Your task to perform on an android device: set the timer Image 0: 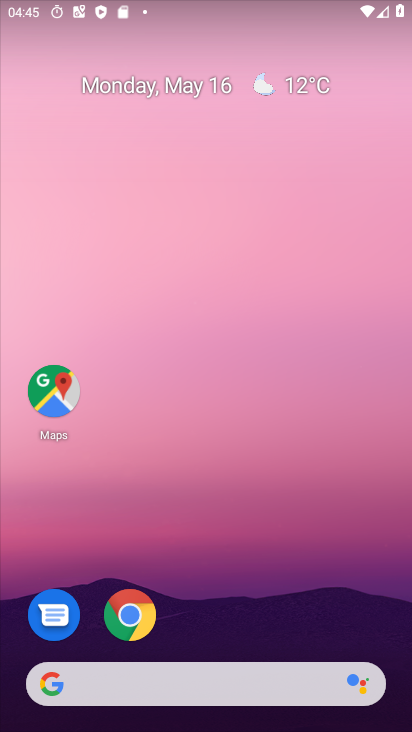
Step 0: click (142, 33)
Your task to perform on an android device: set the timer Image 1: 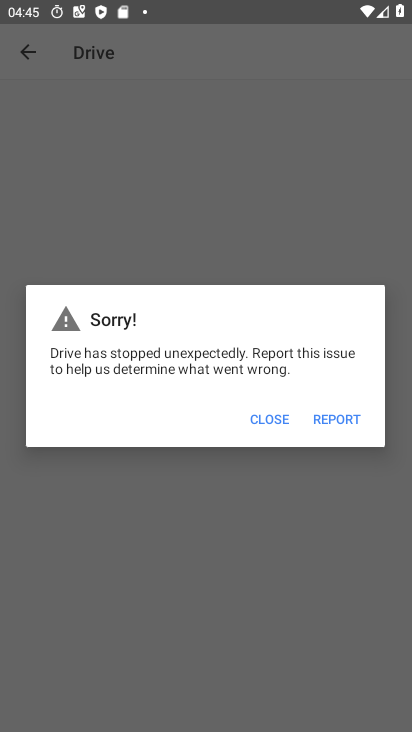
Step 1: drag from (220, 429) to (104, 33)
Your task to perform on an android device: set the timer Image 2: 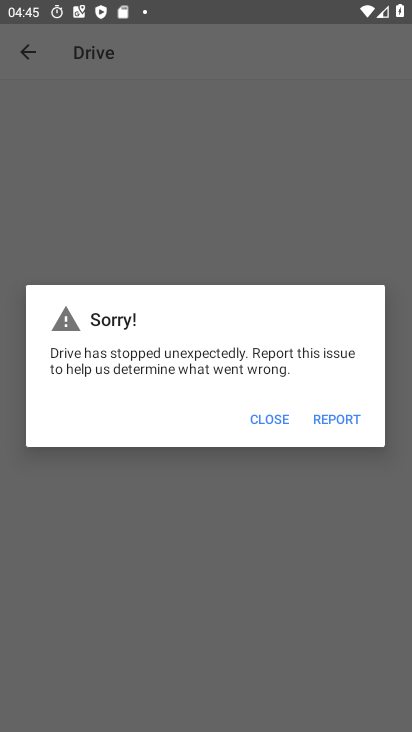
Step 2: click (247, 418)
Your task to perform on an android device: set the timer Image 3: 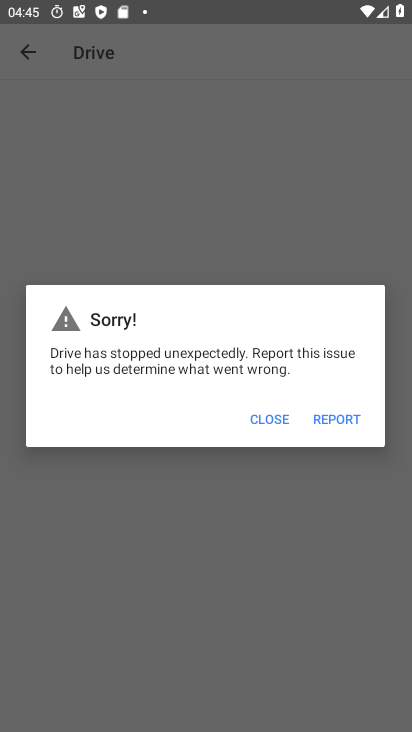
Step 3: click (261, 415)
Your task to perform on an android device: set the timer Image 4: 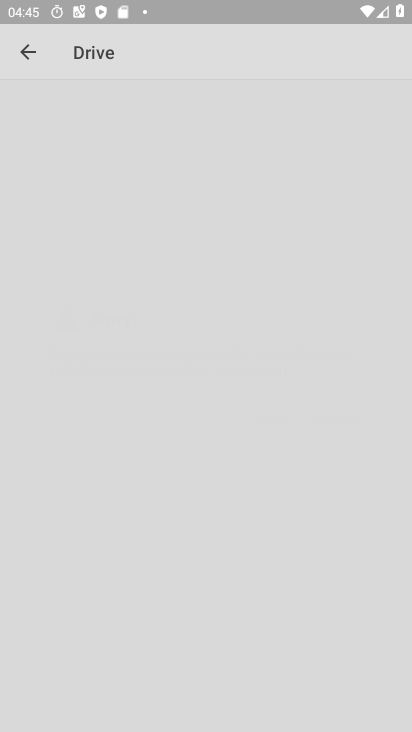
Step 4: click (262, 413)
Your task to perform on an android device: set the timer Image 5: 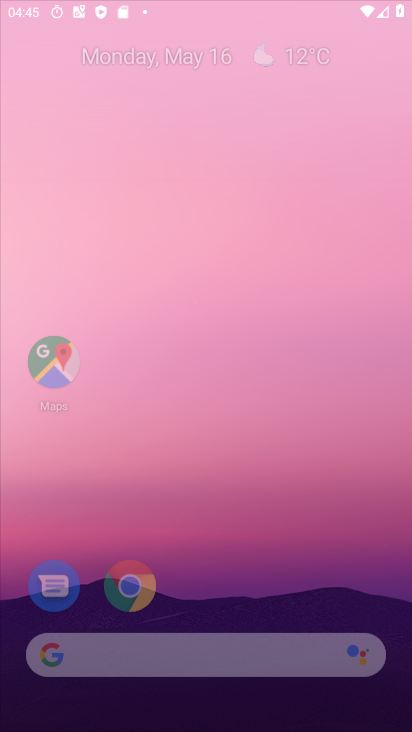
Step 5: click (262, 413)
Your task to perform on an android device: set the timer Image 6: 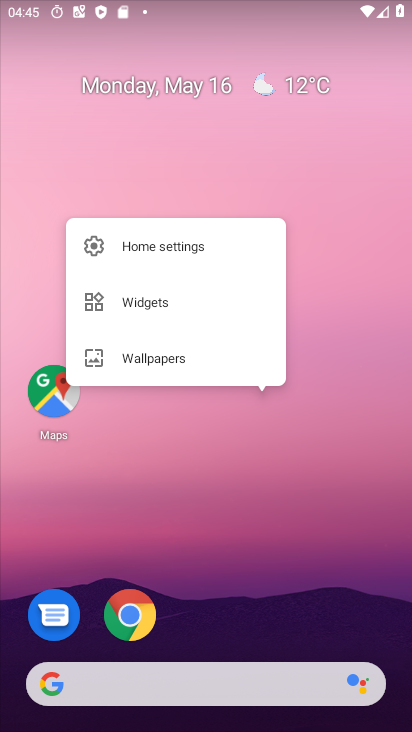
Step 6: drag from (334, 644) to (72, 36)
Your task to perform on an android device: set the timer Image 7: 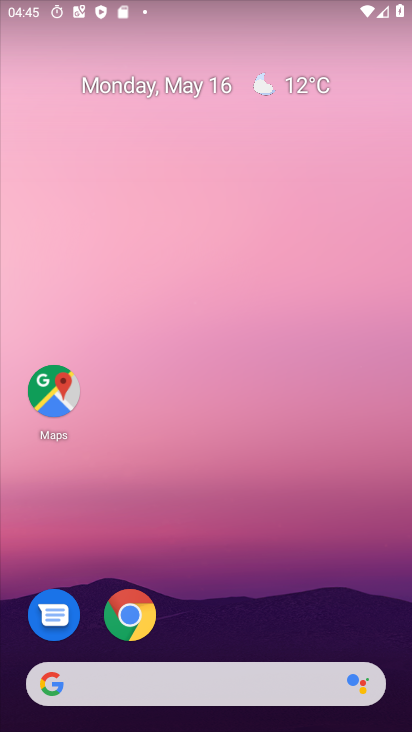
Step 7: drag from (269, 503) to (149, 2)
Your task to perform on an android device: set the timer Image 8: 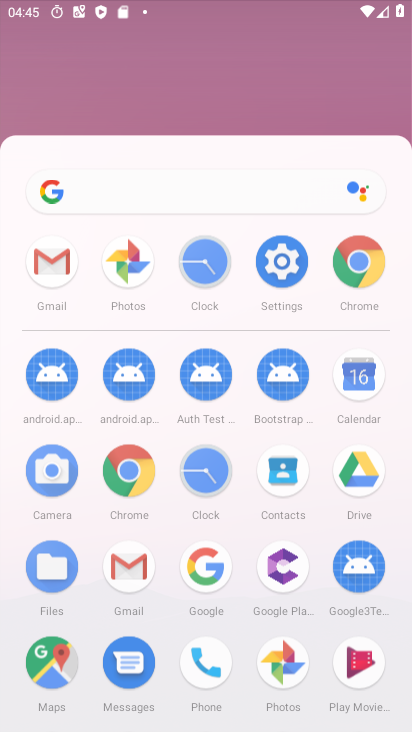
Step 8: drag from (202, 408) to (117, 40)
Your task to perform on an android device: set the timer Image 9: 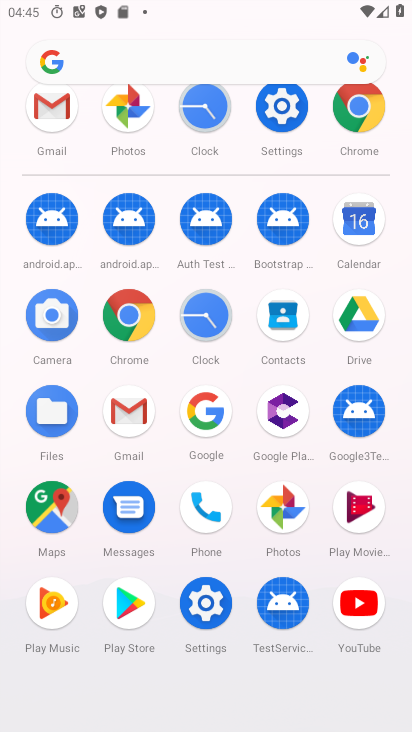
Step 9: drag from (311, 530) to (274, 12)
Your task to perform on an android device: set the timer Image 10: 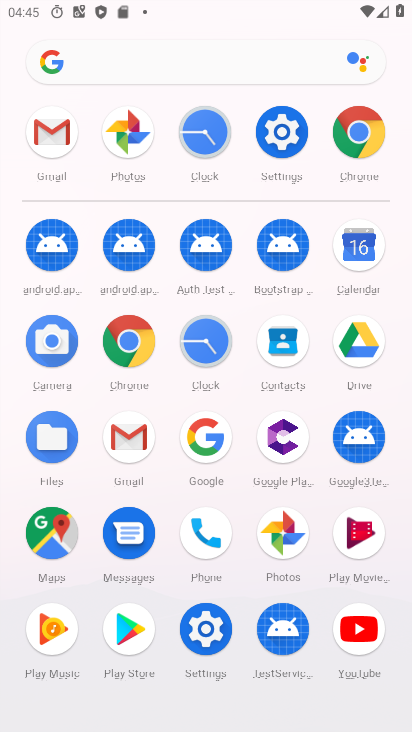
Step 10: click (195, 343)
Your task to perform on an android device: set the timer Image 11: 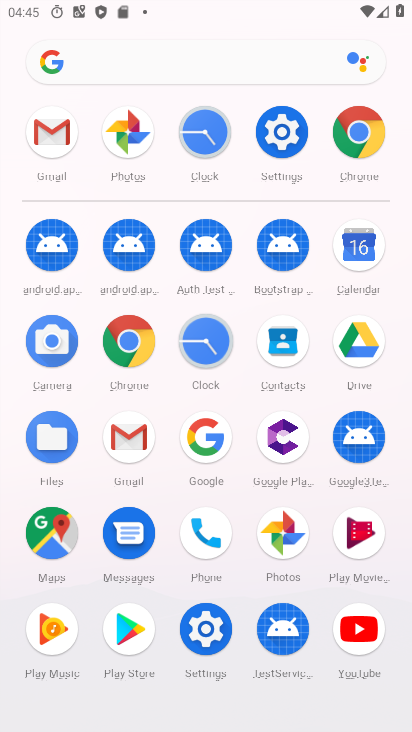
Step 11: click (195, 343)
Your task to perform on an android device: set the timer Image 12: 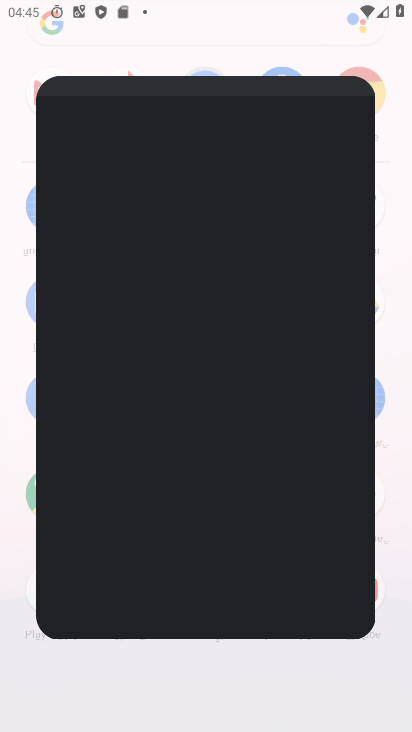
Step 12: click (195, 342)
Your task to perform on an android device: set the timer Image 13: 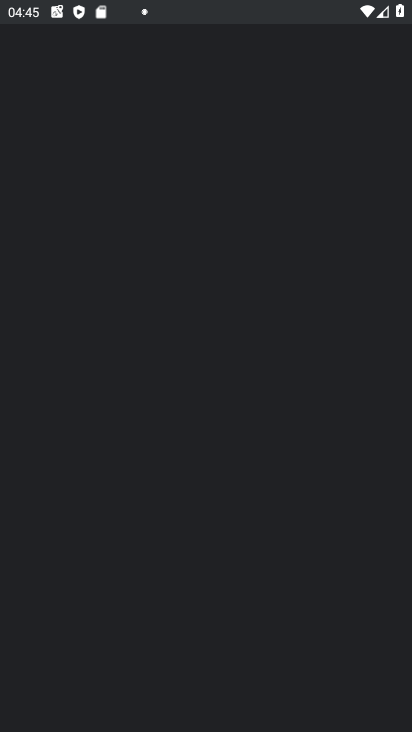
Step 13: click (195, 343)
Your task to perform on an android device: set the timer Image 14: 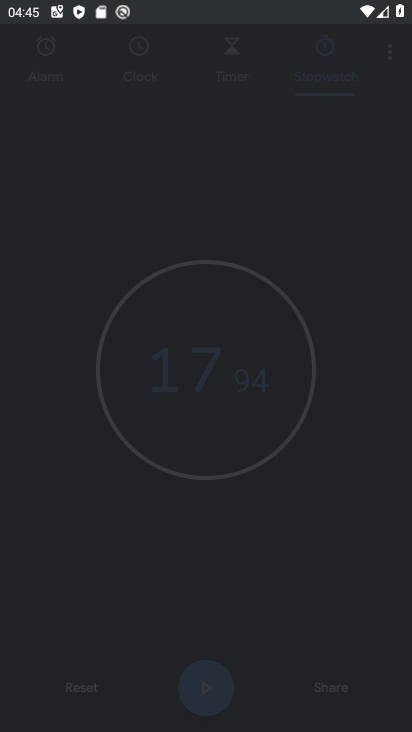
Step 14: click (204, 350)
Your task to perform on an android device: set the timer Image 15: 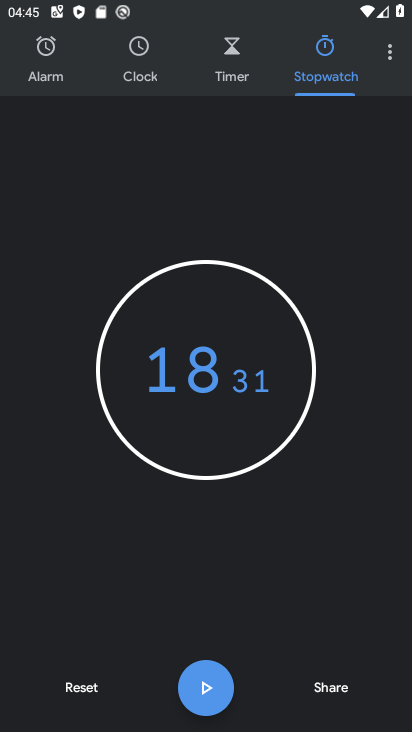
Step 15: click (384, 54)
Your task to perform on an android device: set the timer Image 16: 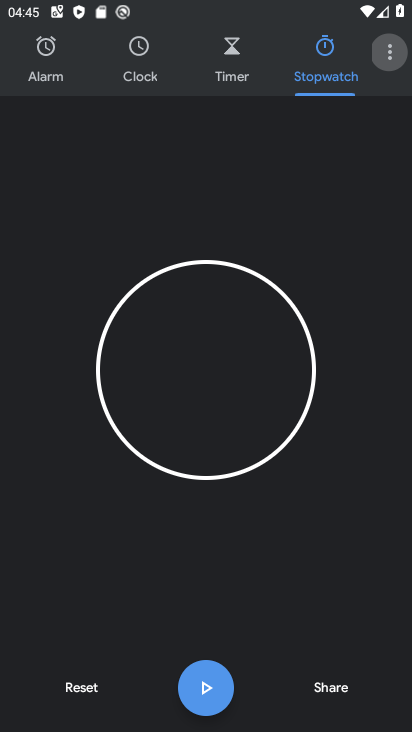
Step 16: click (385, 52)
Your task to perform on an android device: set the timer Image 17: 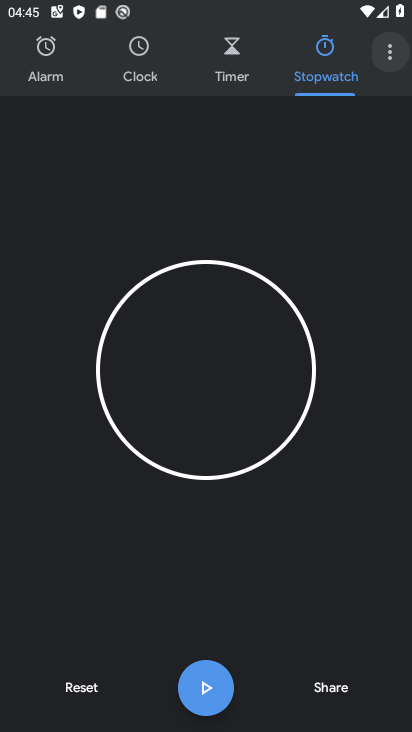
Step 17: click (385, 52)
Your task to perform on an android device: set the timer Image 18: 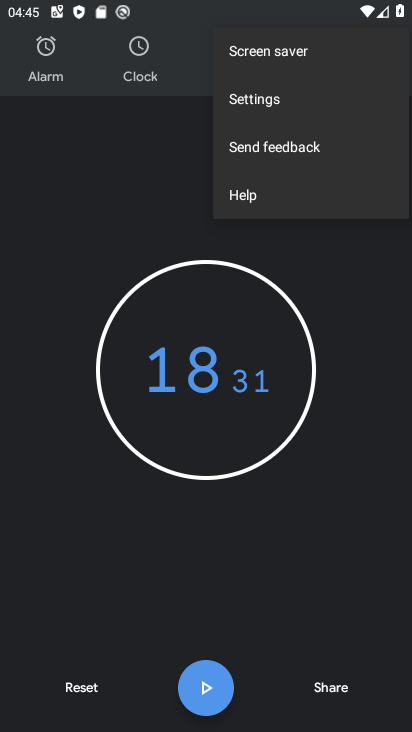
Step 18: click (385, 52)
Your task to perform on an android device: set the timer Image 19: 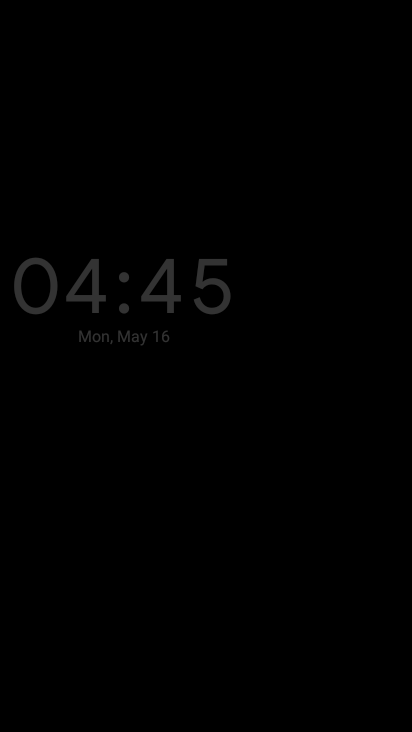
Step 19: click (138, 202)
Your task to perform on an android device: set the timer Image 20: 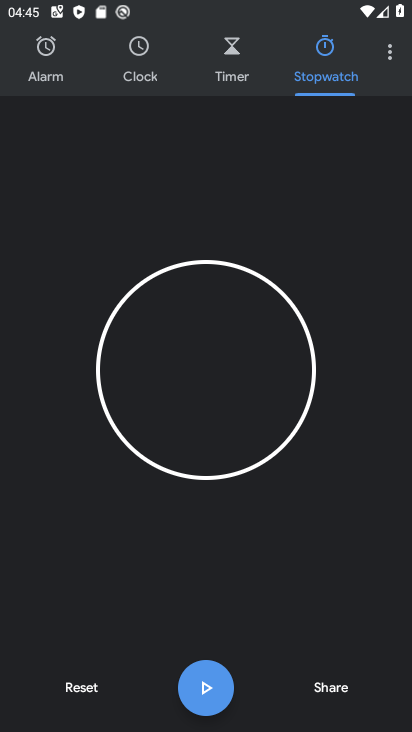
Step 20: press back button
Your task to perform on an android device: set the timer Image 21: 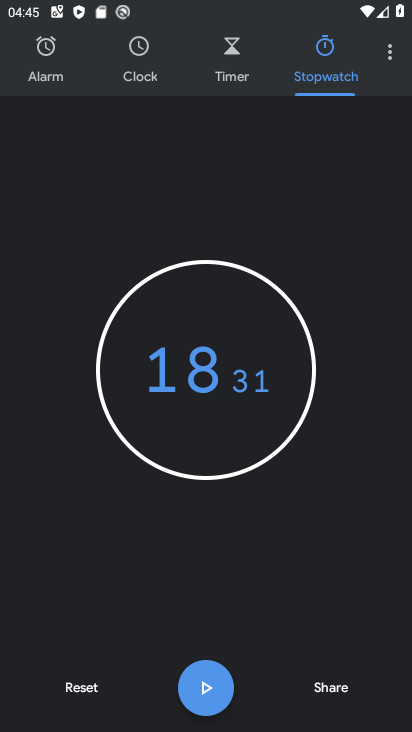
Step 21: click (234, 67)
Your task to perform on an android device: set the timer Image 22: 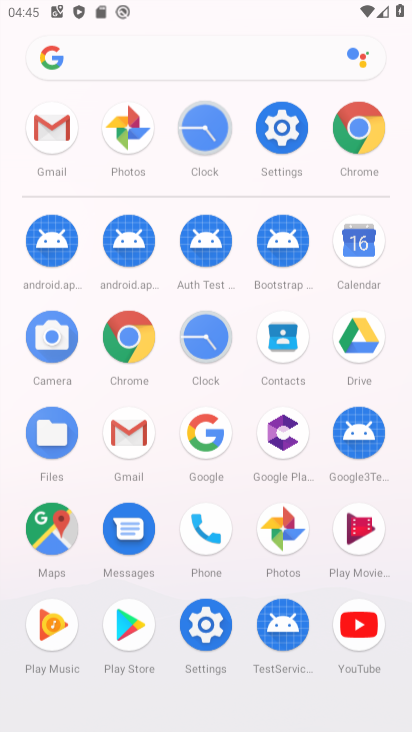
Step 22: click (234, 67)
Your task to perform on an android device: set the timer Image 23: 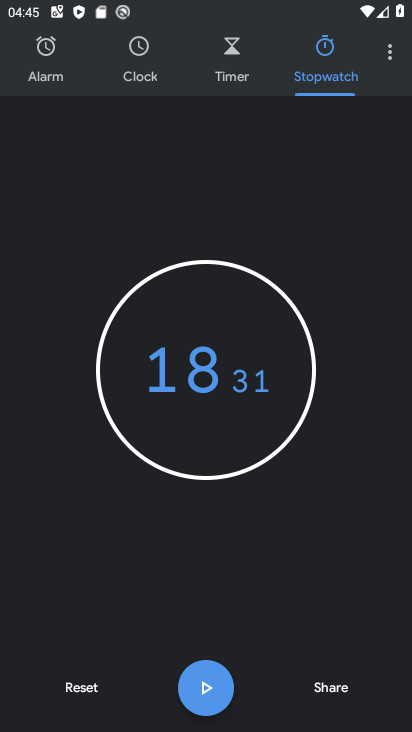
Step 23: click (217, 66)
Your task to perform on an android device: set the timer Image 24: 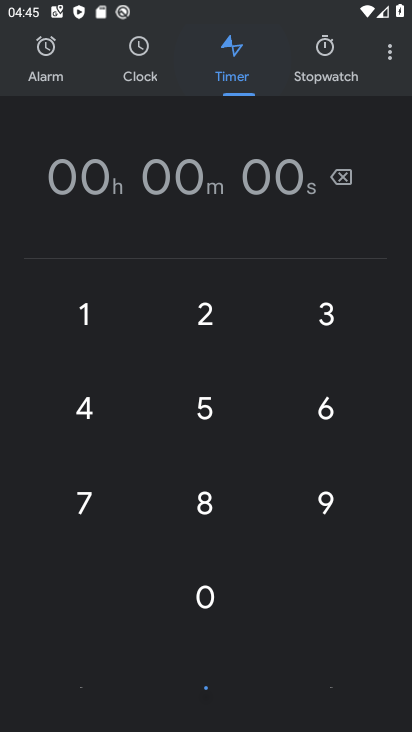
Step 24: click (225, 70)
Your task to perform on an android device: set the timer Image 25: 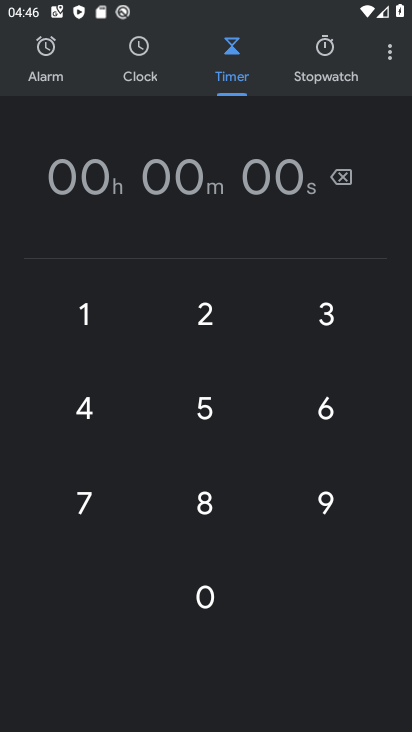
Step 25: click (205, 407)
Your task to perform on an android device: set the timer Image 26: 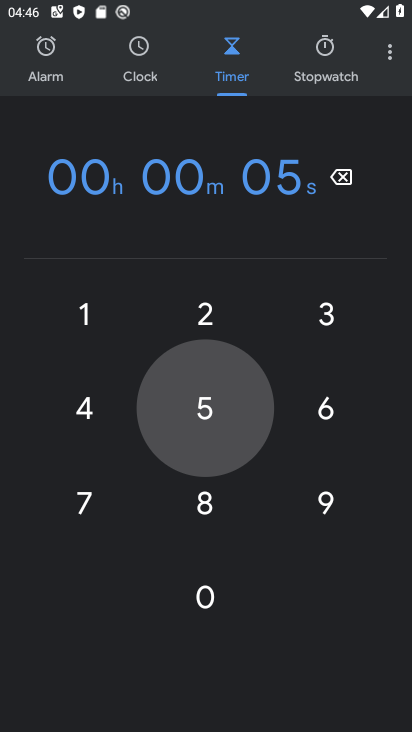
Step 26: click (205, 406)
Your task to perform on an android device: set the timer Image 27: 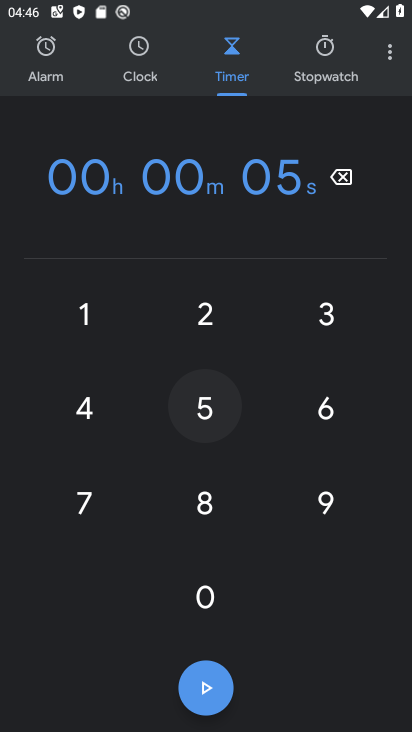
Step 27: click (211, 415)
Your task to perform on an android device: set the timer Image 28: 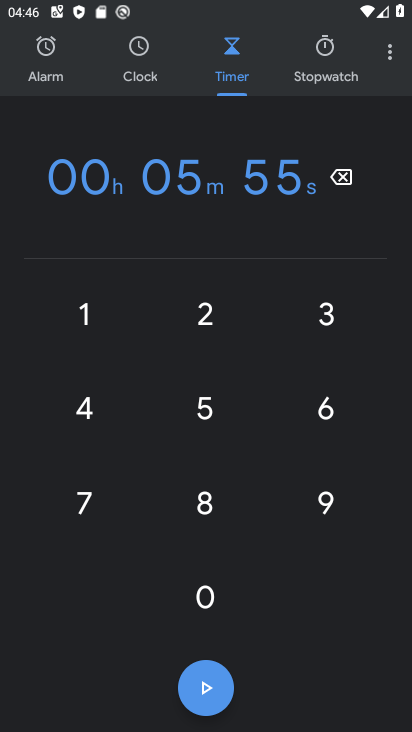
Step 28: click (205, 692)
Your task to perform on an android device: set the timer Image 29: 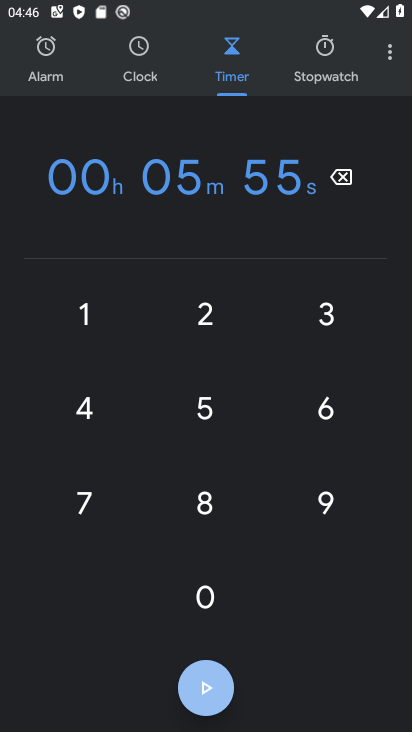
Step 29: click (220, 694)
Your task to perform on an android device: set the timer Image 30: 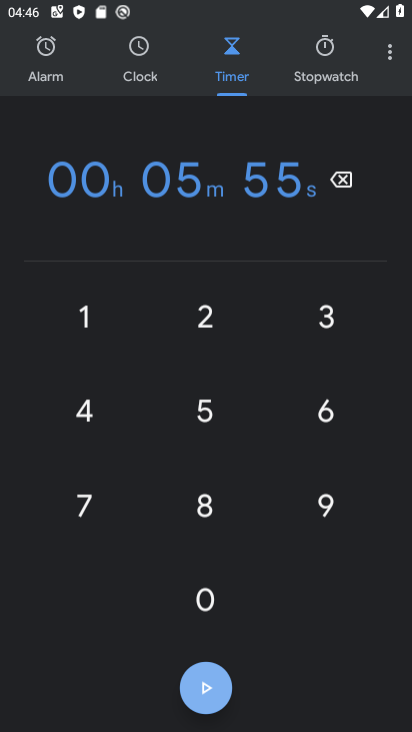
Step 30: click (220, 695)
Your task to perform on an android device: set the timer Image 31: 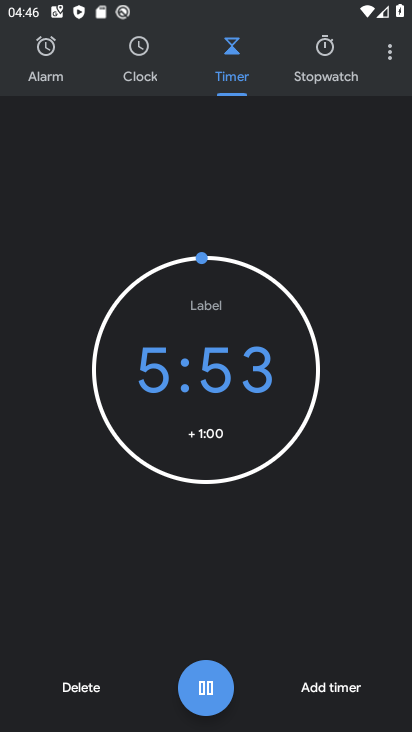
Step 31: click (207, 686)
Your task to perform on an android device: set the timer Image 32: 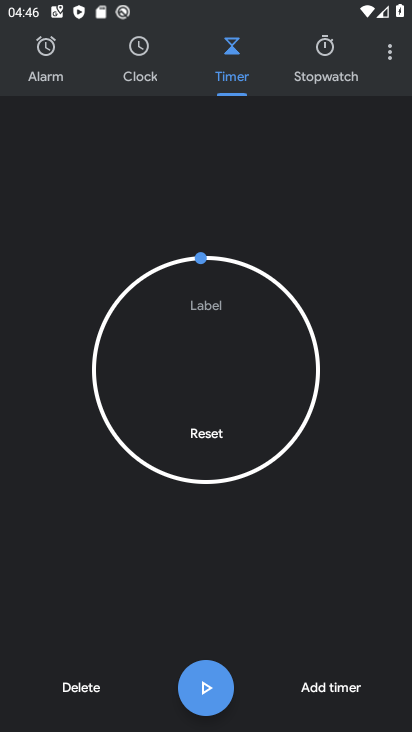
Step 32: click (204, 681)
Your task to perform on an android device: set the timer Image 33: 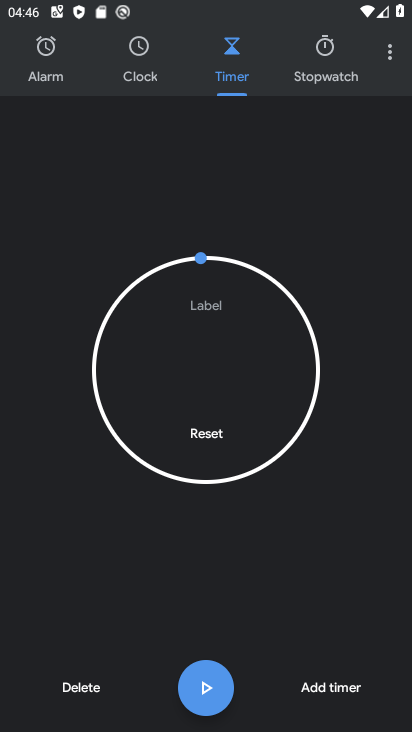
Step 33: click (203, 682)
Your task to perform on an android device: set the timer Image 34: 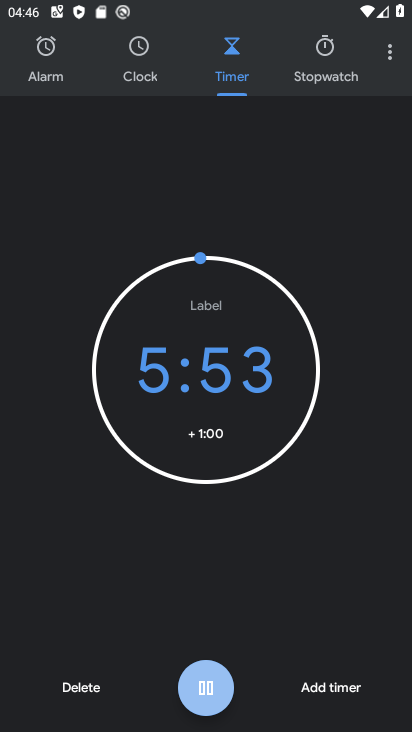
Step 34: click (203, 682)
Your task to perform on an android device: set the timer Image 35: 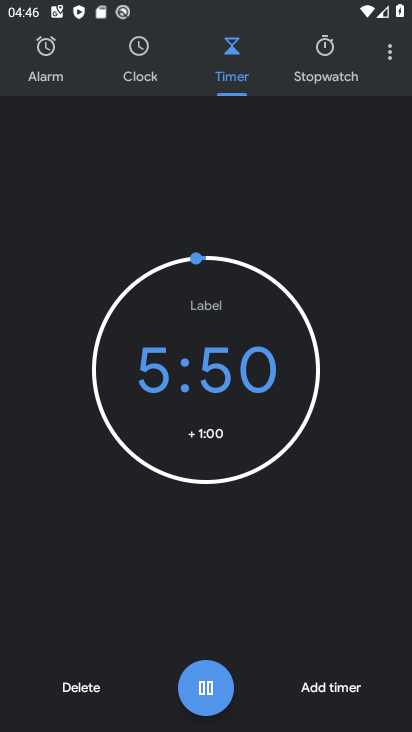
Step 35: click (199, 694)
Your task to perform on an android device: set the timer Image 36: 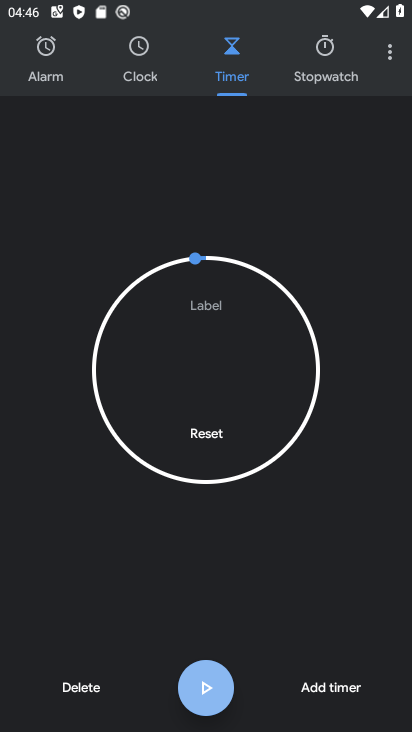
Step 36: click (201, 693)
Your task to perform on an android device: set the timer Image 37: 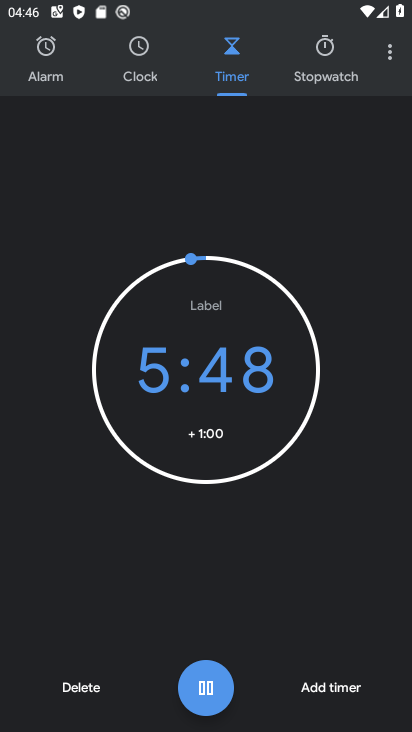
Step 37: task complete